Your task to perform on an android device: Open Youtube and go to the subscriptions tab Image 0: 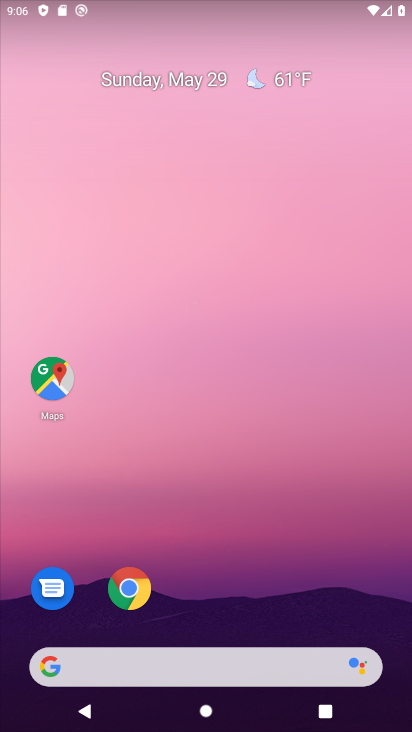
Step 0: click (267, 144)
Your task to perform on an android device: Open Youtube and go to the subscriptions tab Image 1: 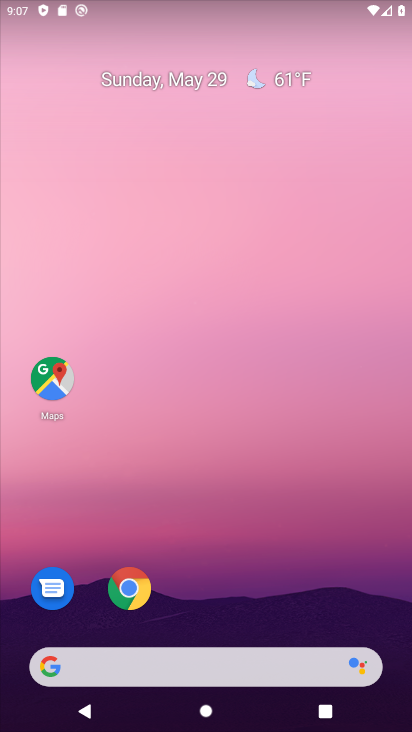
Step 1: drag from (328, 438) to (269, 43)
Your task to perform on an android device: Open Youtube and go to the subscriptions tab Image 2: 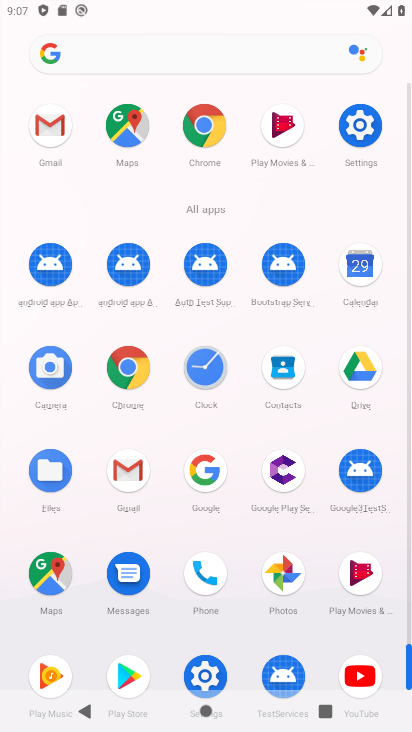
Step 2: click (355, 675)
Your task to perform on an android device: Open Youtube and go to the subscriptions tab Image 3: 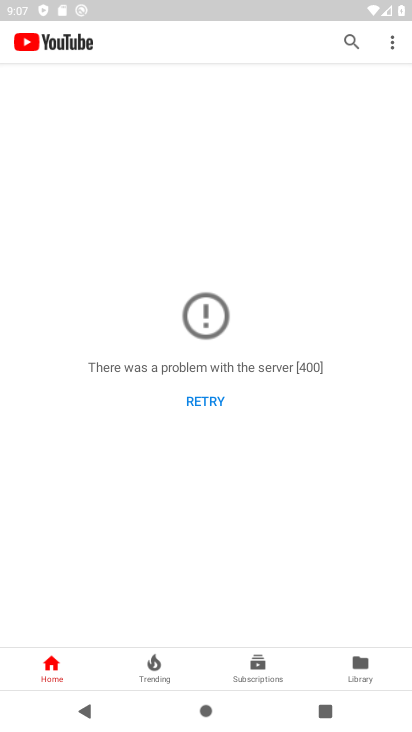
Step 3: click (354, 667)
Your task to perform on an android device: Open Youtube and go to the subscriptions tab Image 4: 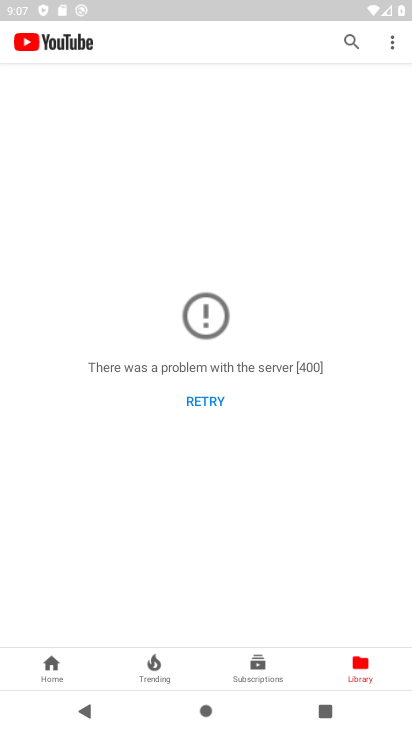
Step 4: click (209, 405)
Your task to perform on an android device: Open Youtube and go to the subscriptions tab Image 5: 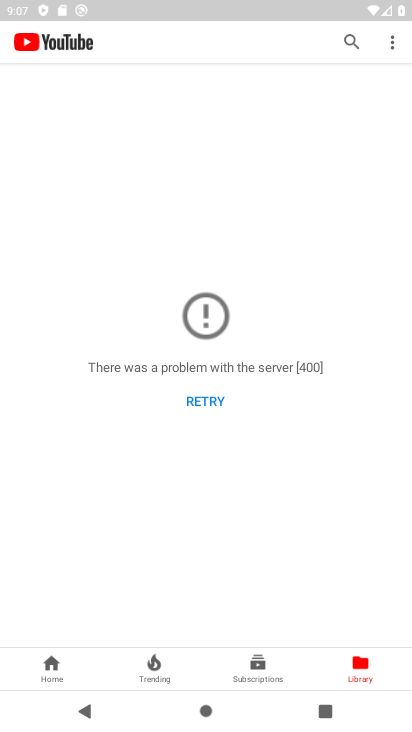
Step 5: click (209, 405)
Your task to perform on an android device: Open Youtube and go to the subscriptions tab Image 6: 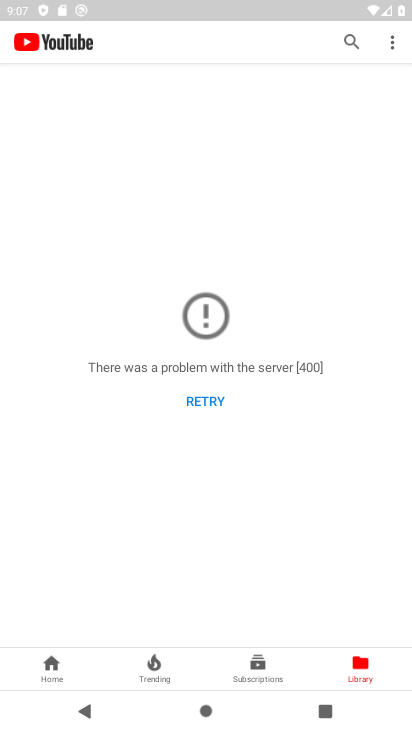
Step 6: task complete